Your task to perform on an android device: Go to CNN.com Image 0: 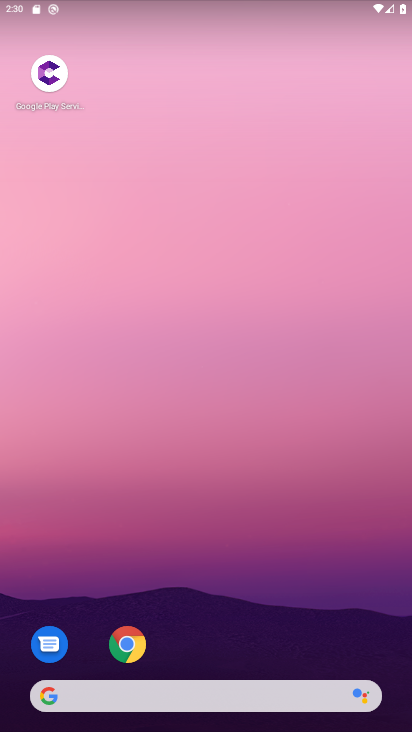
Step 0: click (120, 655)
Your task to perform on an android device: Go to CNN.com Image 1: 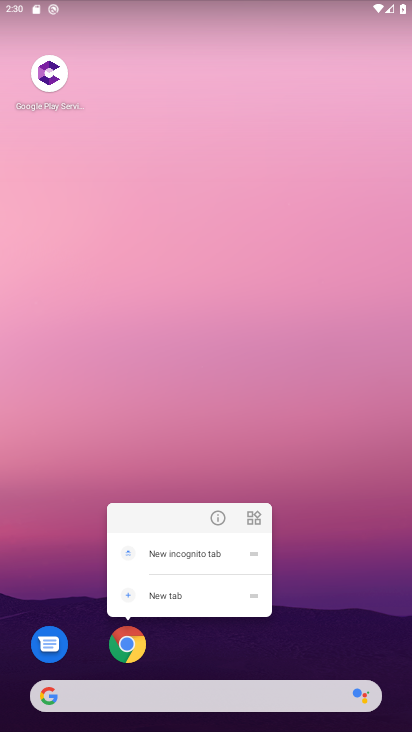
Step 1: click (122, 650)
Your task to perform on an android device: Go to CNN.com Image 2: 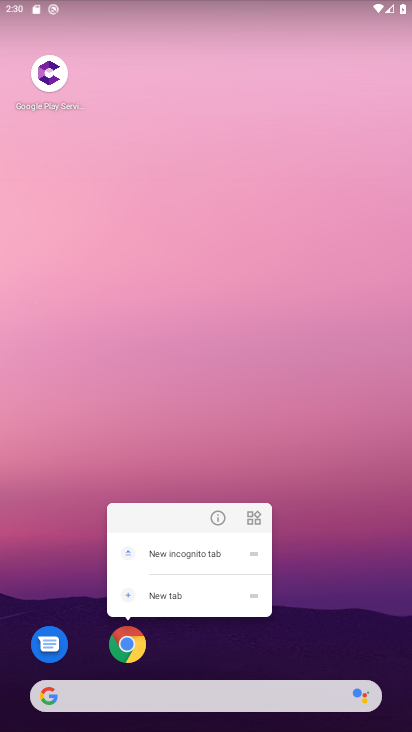
Step 2: click (129, 650)
Your task to perform on an android device: Go to CNN.com Image 3: 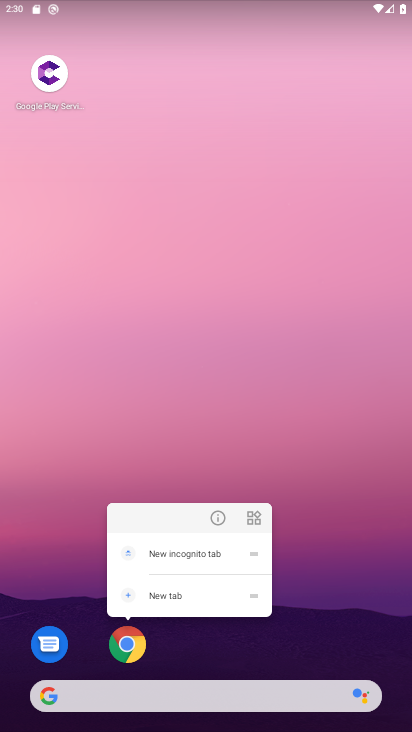
Step 3: click (131, 650)
Your task to perform on an android device: Go to CNN.com Image 4: 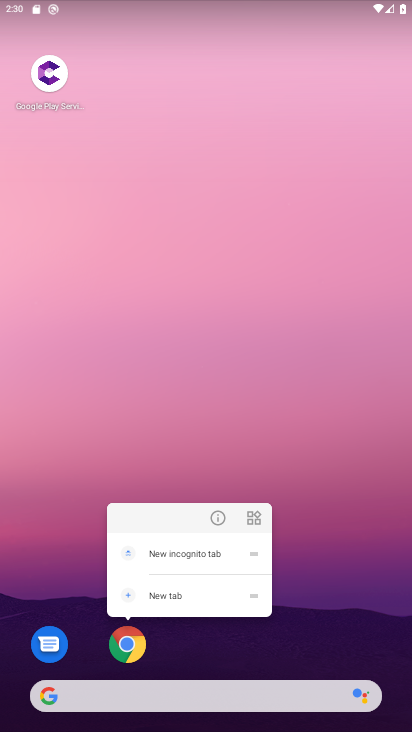
Step 4: click (133, 649)
Your task to perform on an android device: Go to CNN.com Image 5: 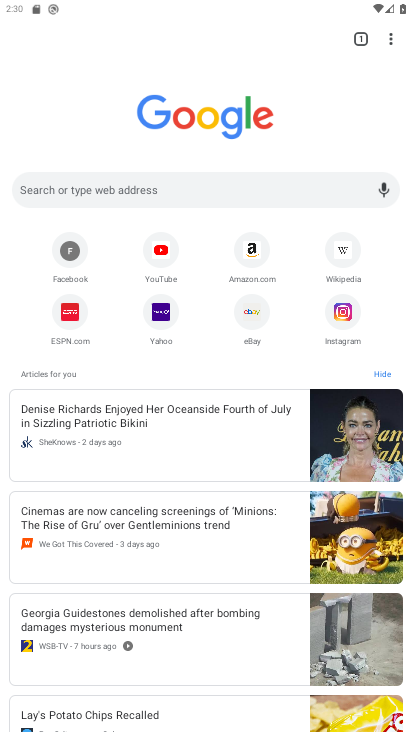
Step 5: click (140, 187)
Your task to perform on an android device: Go to CNN.com Image 6: 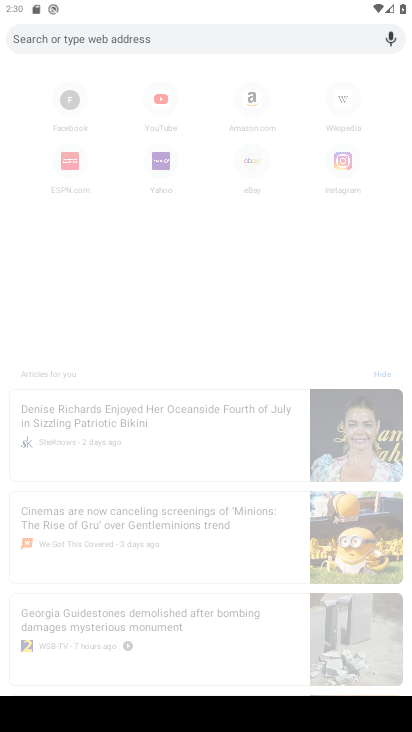
Step 6: type "CNN.com"
Your task to perform on an android device: Go to CNN.com Image 7: 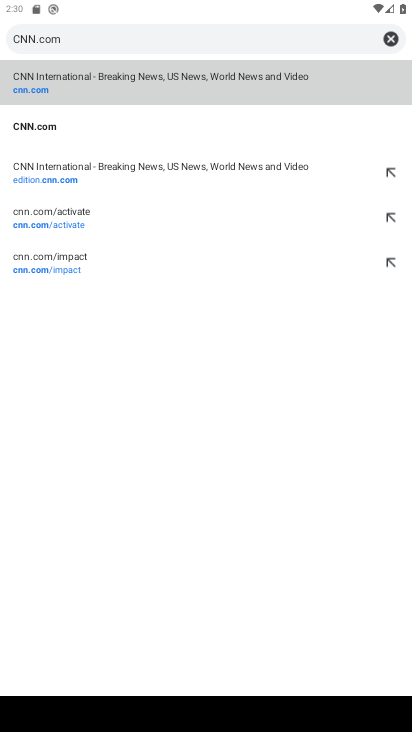
Step 7: click (113, 92)
Your task to perform on an android device: Go to CNN.com Image 8: 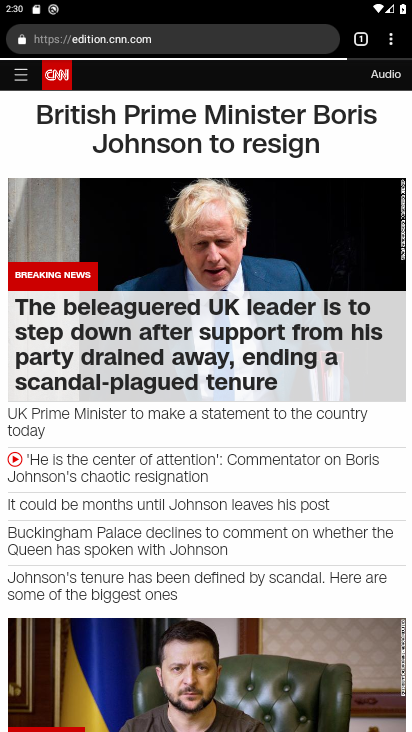
Step 8: task complete